Your task to perform on an android device: set default search engine in the chrome app Image 0: 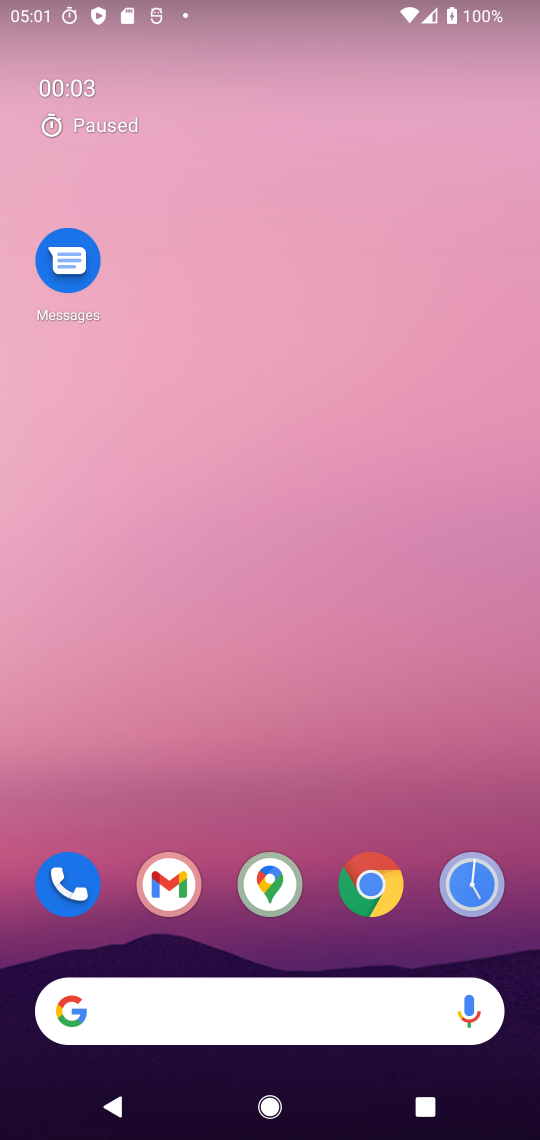
Step 0: click (374, 891)
Your task to perform on an android device: set default search engine in the chrome app Image 1: 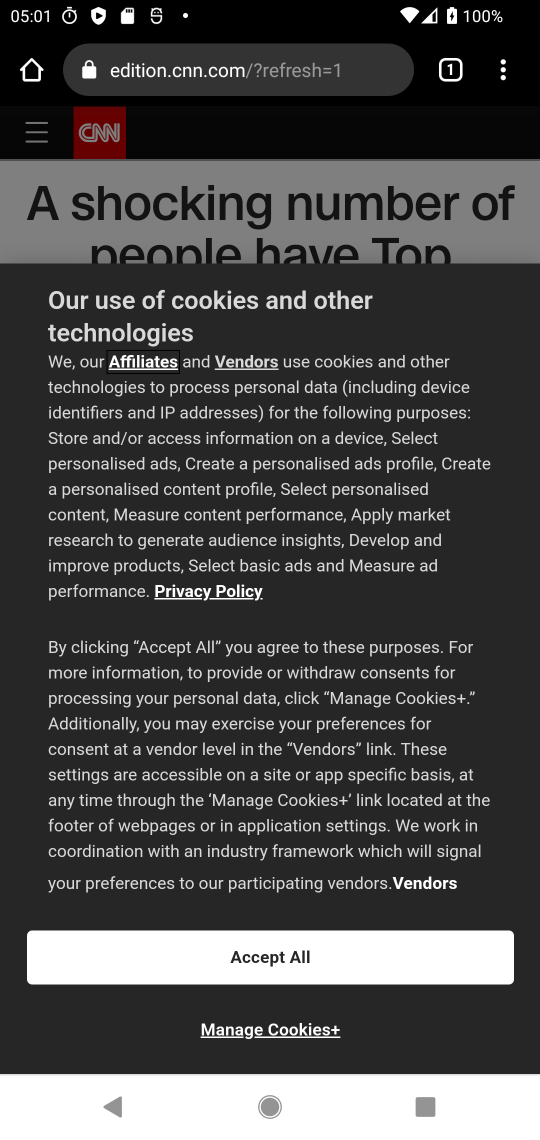
Step 1: click (501, 65)
Your task to perform on an android device: set default search engine in the chrome app Image 2: 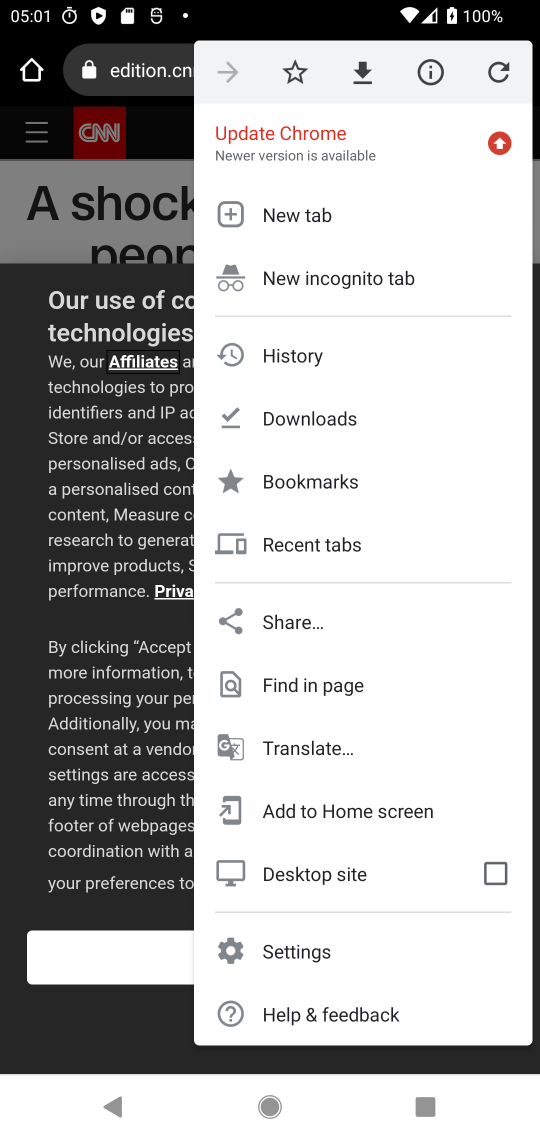
Step 2: click (315, 953)
Your task to perform on an android device: set default search engine in the chrome app Image 3: 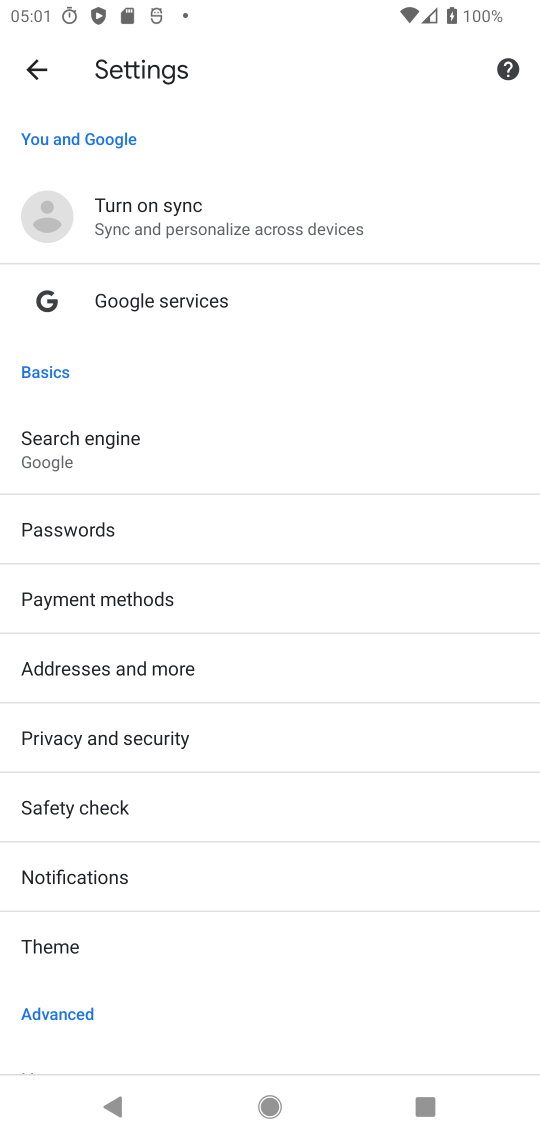
Step 3: click (121, 460)
Your task to perform on an android device: set default search engine in the chrome app Image 4: 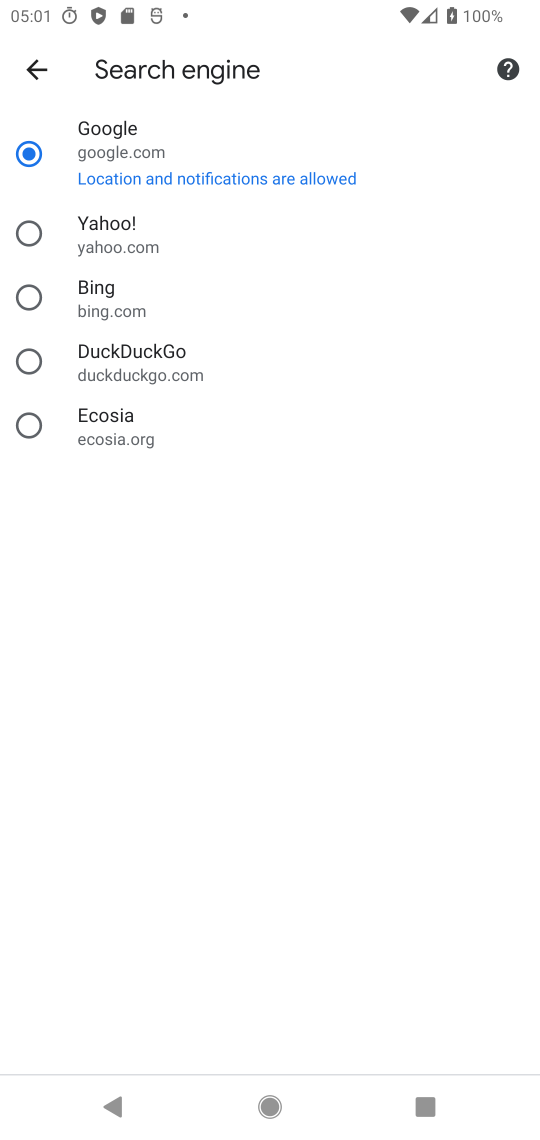
Step 4: task complete